Your task to perform on an android device: toggle notification dots Image 0: 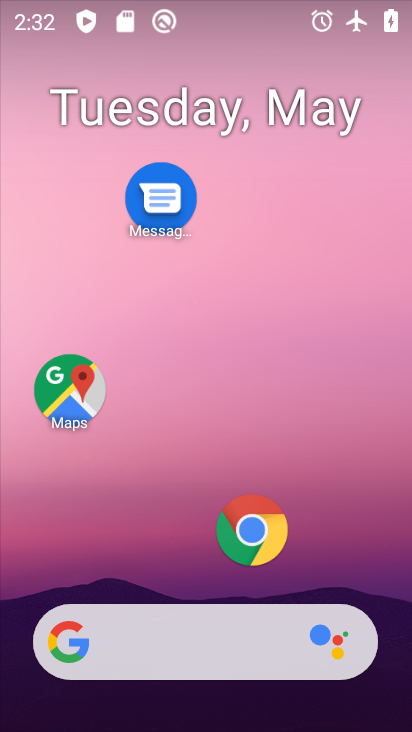
Step 0: drag from (198, 581) to (271, 134)
Your task to perform on an android device: toggle notification dots Image 1: 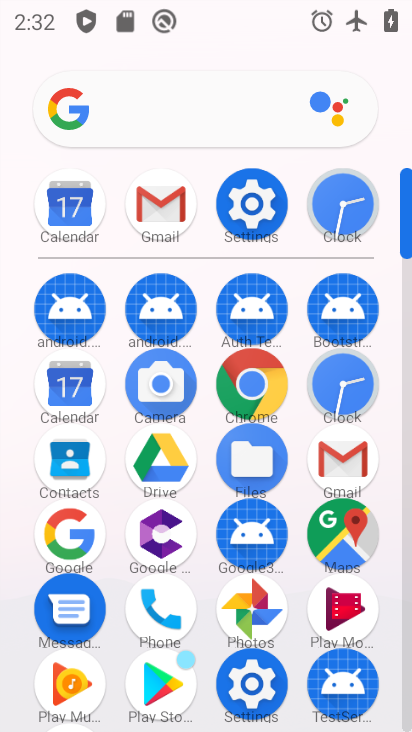
Step 1: click (249, 192)
Your task to perform on an android device: toggle notification dots Image 2: 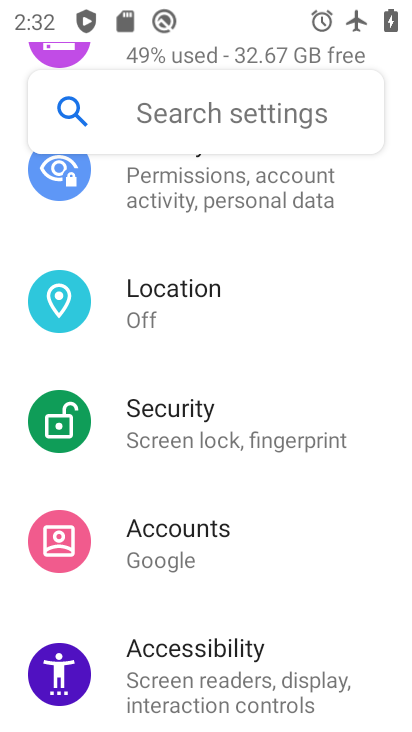
Step 2: drag from (259, 305) to (251, 545)
Your task to perform on an android device: toggle notification dots Image 3: 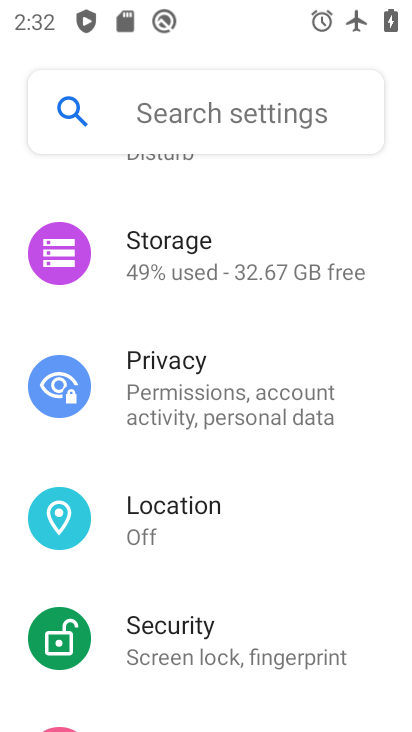
Step 3: drag from (257, 268) to (257, 585)
Your task to perform on an android device: toggle notification dots Image 4: 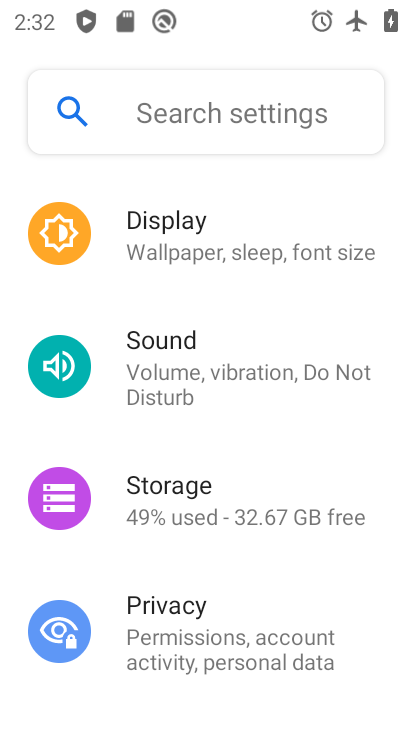
Step 4: drag from (257, 267) to (257, 572)
Your task to perform on an android device: toggle notification dots Image 5: 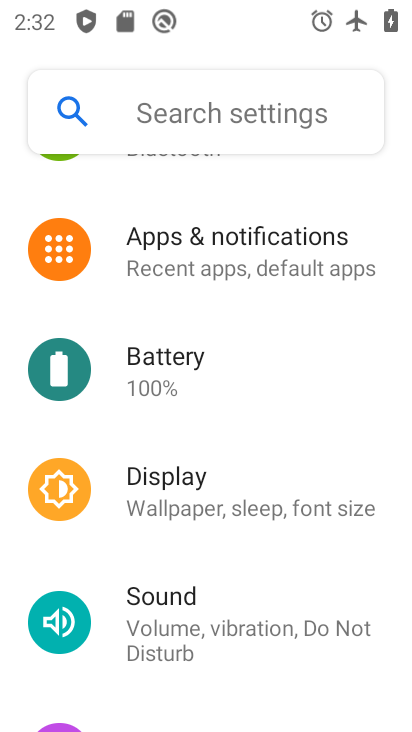
Step 5: click (193, 262)
Your task to perform on an android device: toggle notification dots Image 6: 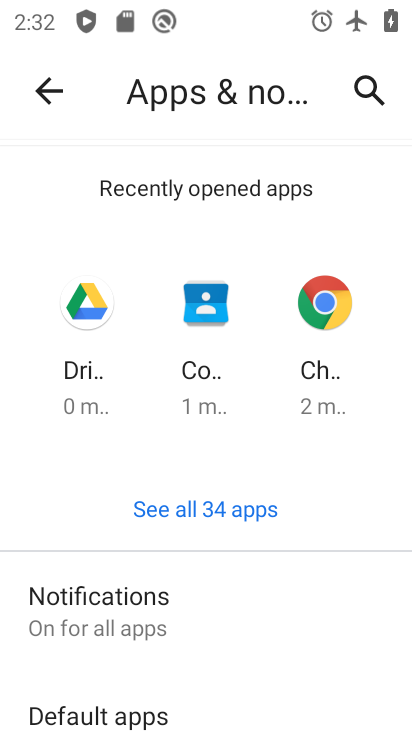
Step 6: click (158, 596)
Your task to perform on an android device: toggle notification dots Image 7: 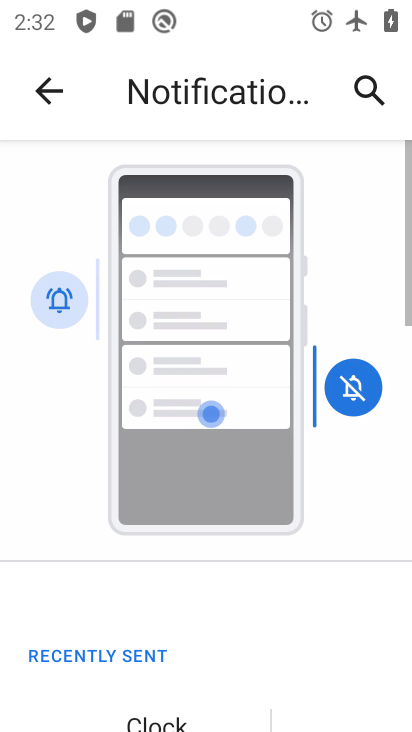
Step 7: drag from (226, 646) to (295, 340)
Your task to perform on an android device: toggle notification dots Image 8: 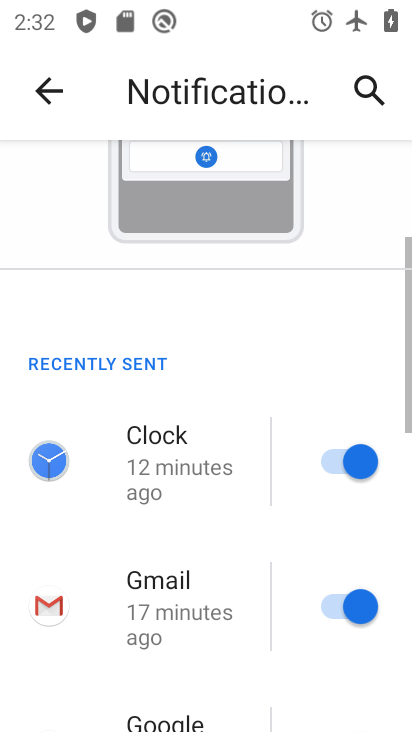
Step 8: drag from (280, 615) to (280, 307)
Your task to perform on an android device: toggle notification dots Image 9: 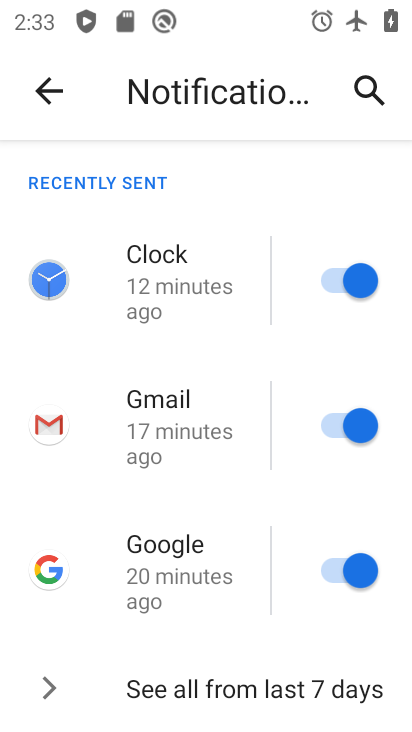
Step 9: drag from (269, 569) to (300, 303)
Your task to perform on an android device: toggle notification dots Image 10: 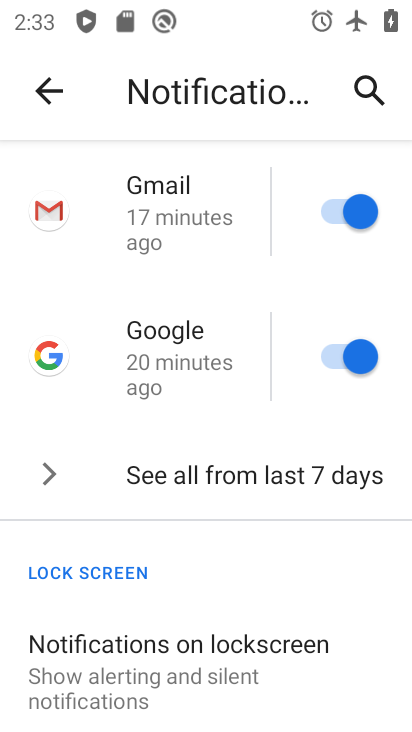
Step 10: drag from (206, 496) to (219, 332)
Your task to perform on an android device: toggle notification dots Image 11: 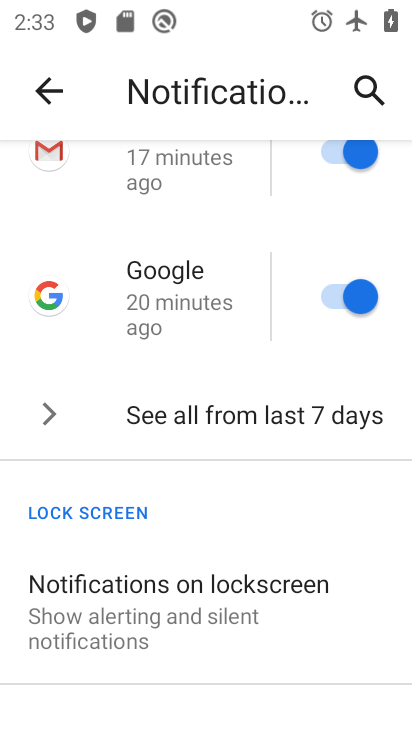
Step 11: drag from (253, 497) to (283, 191)
Your task to perform on an android device: toggle notification dots Image 12: 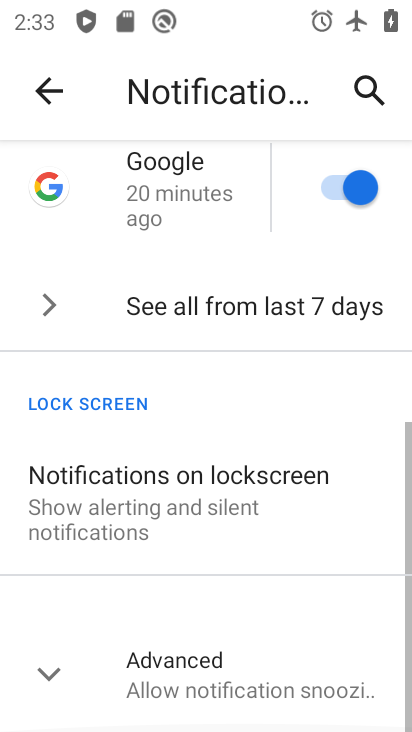
Step 12: click (230, 647)
Your task to perform on an android device: toggle notification dots Image 13: 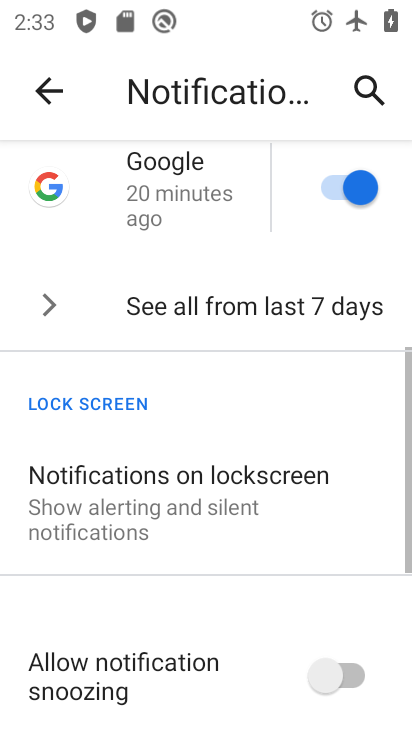
Step 13: drag from (230, 647) to (288, 300)
Your task to perform on an android device: toggle notification dots Image 14: 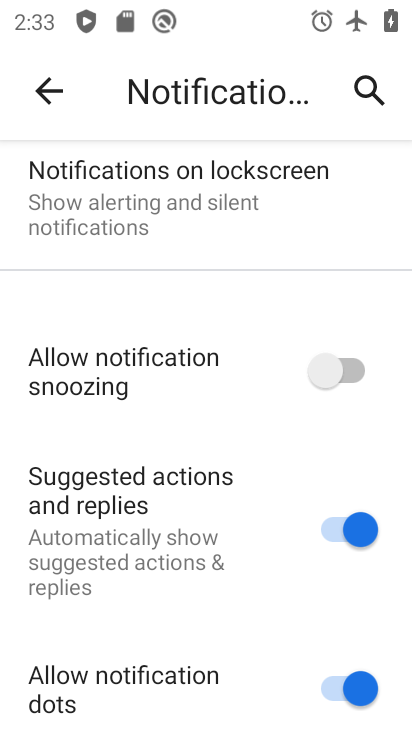
Step 14: click (326, 686)
Your task to perform on an android device: toggle notification dots Image 15: 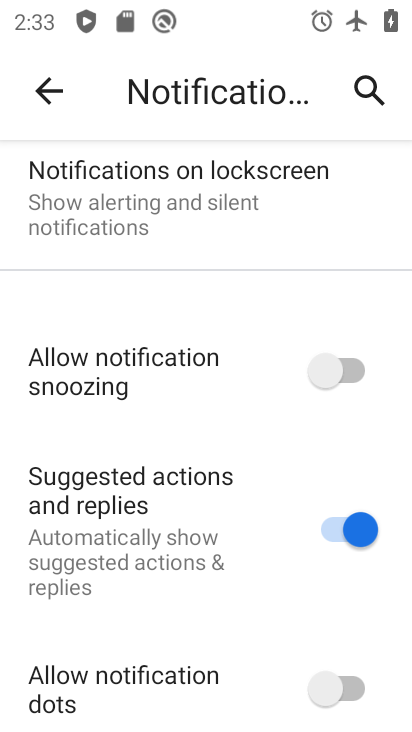
Step 15: task complete